Your task to perform on an android device: open a bookmark in the chrome app Image 0: 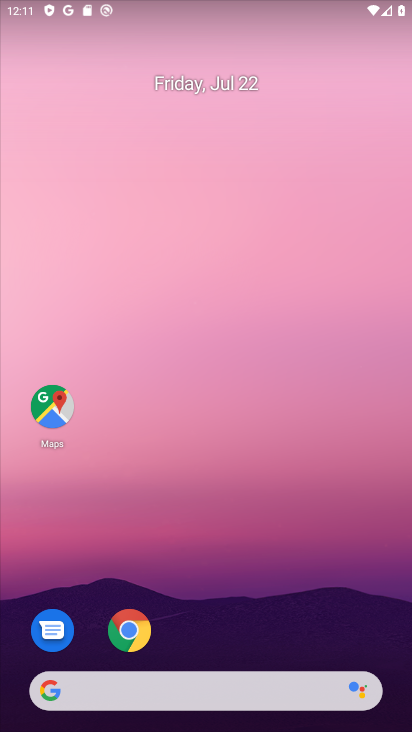
Step 0: drag from (209, 572) to (190, 79)
Your task to perform on an android device: open a bookmark in the chrome app Image 1: 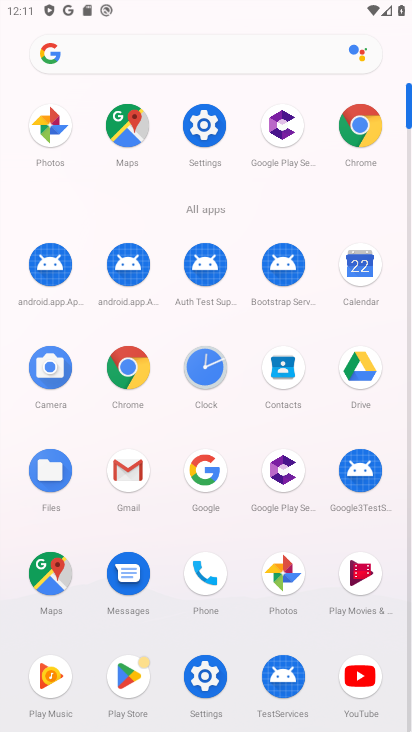
Step 1: click (358, 125)
Your task to perform on an android device: open a bookmark in the chrome app Image 2: 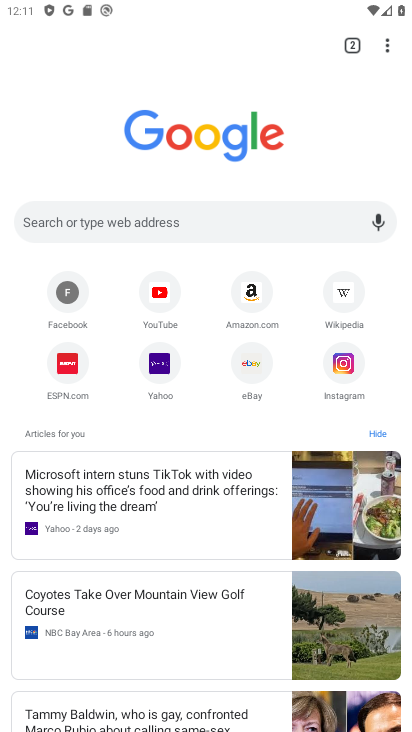
Step 2: click (378, 50)
Your task to perform on an android device: open a bookmark in the chrome app Image 3: 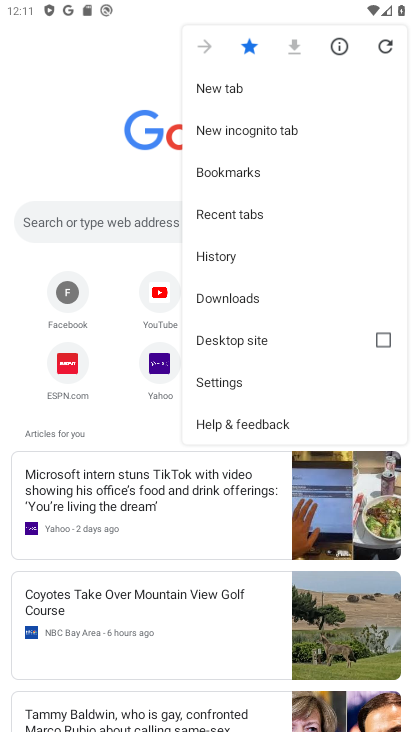
Step 3: click (234, 173)
Your task to perform on an android device: open a bookmark in the chrome app Image 4: 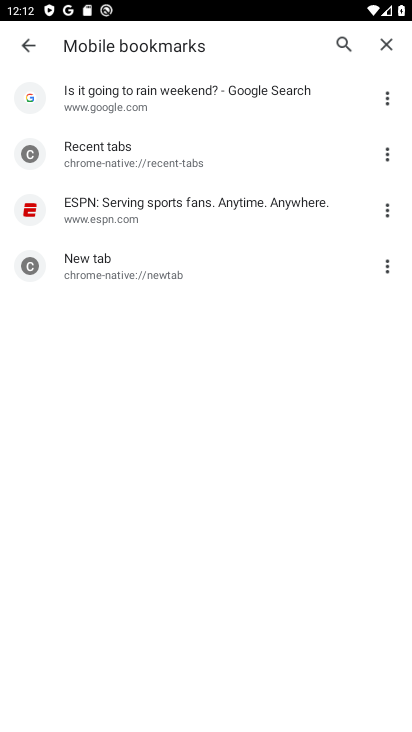
Step 4: click (94, 206)
Your task to perform on an android device: open a bookmark in the chrome app Image 5: 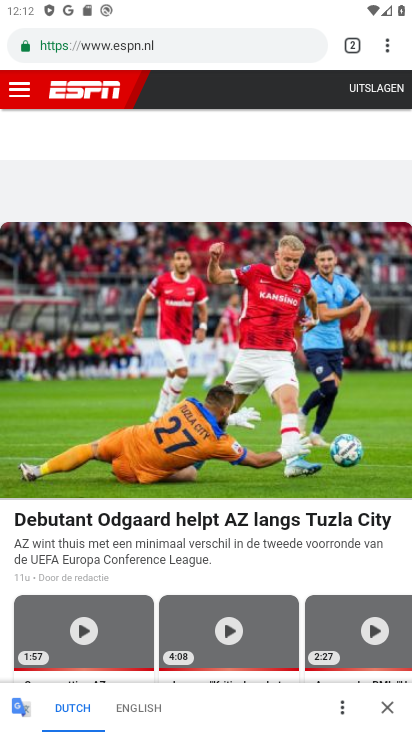
Step 5: task complete